Your task to perform on an android device: clear history in the chrome app Image 0: 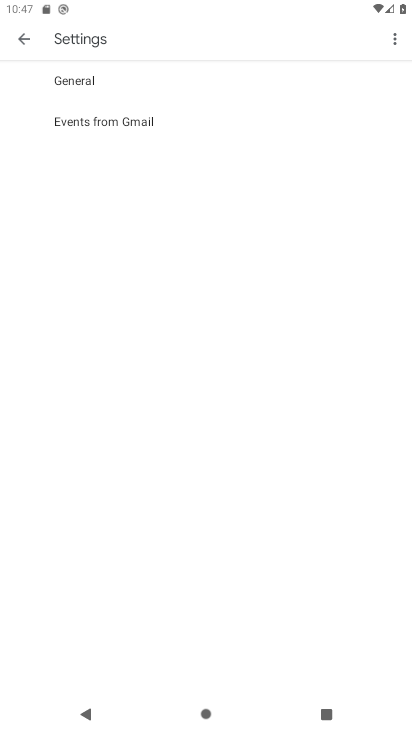
Step 0: press home button
Your task to perform on an android device: clear history in the chrome app Image 1: 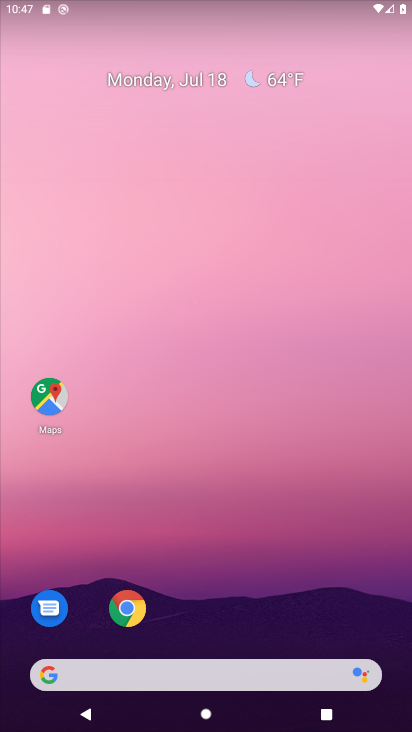
Step 1: click (117, 608)
Your task to perform on an android device: clear history in the chrome app Image 2: 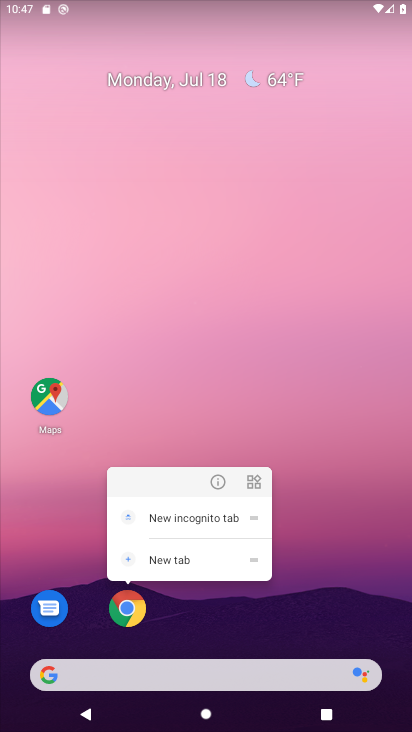
Step 2: click (119, 604)
Your task to perform on an android device: clear history in the chrome app Image 3: 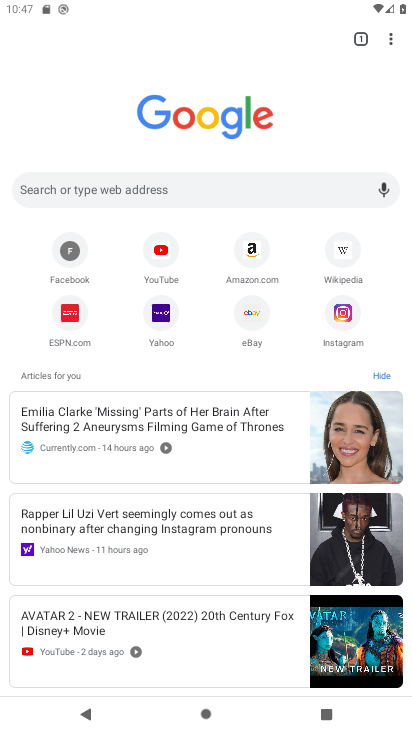
Step 3: click (390, 29)
Your task to perform on an android device: clear history in the chrome app Image 4: 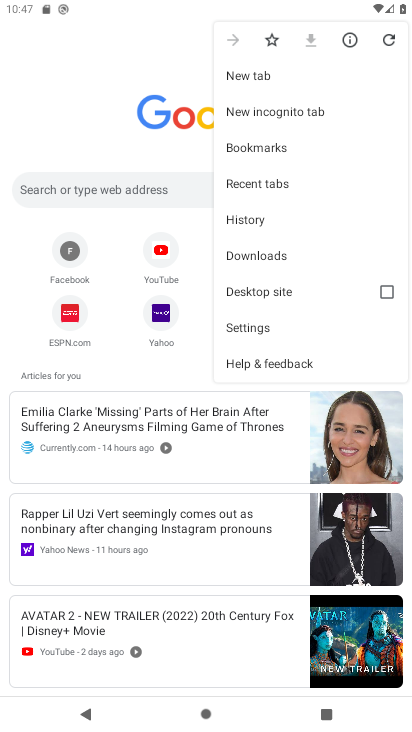
Step 4: click (243, 215)
Your task to perform on an android device: clear history in the chrome app Image 5: 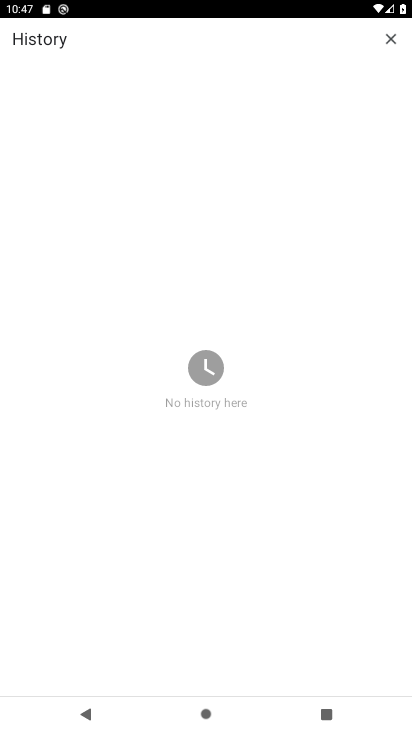
Step 5: task complete